Your task to perform on an android device: Search for Mexican restaurants on Maps Image 0: 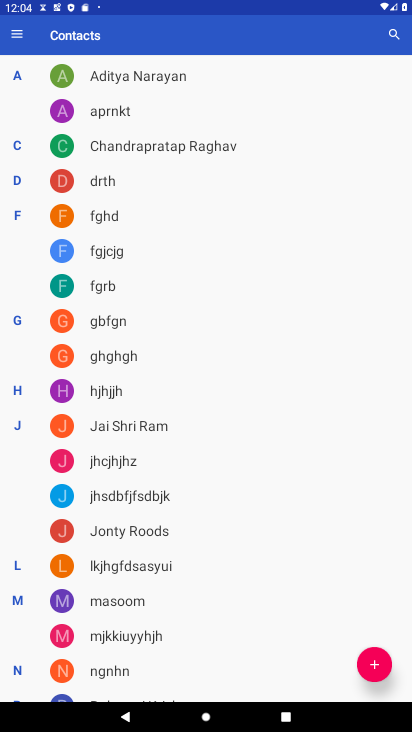
Step 0: press back button
Your task to perform on an android device: Search for Mexican restaurants on Maps Image 1: 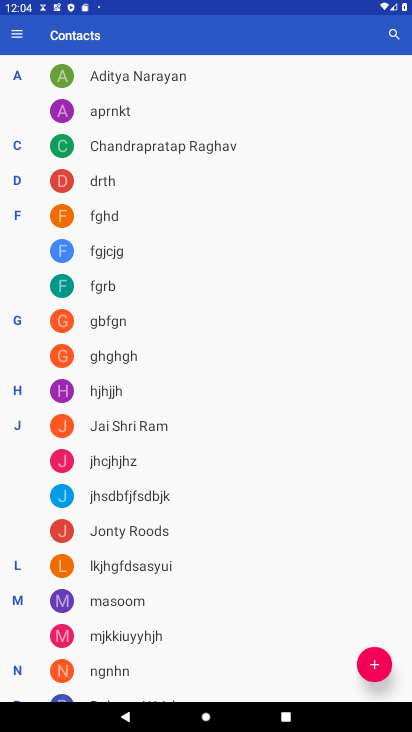
Step 1: press back button
Your task to perform on an android device: Search for Mexican restaurants on Maps Image 2: 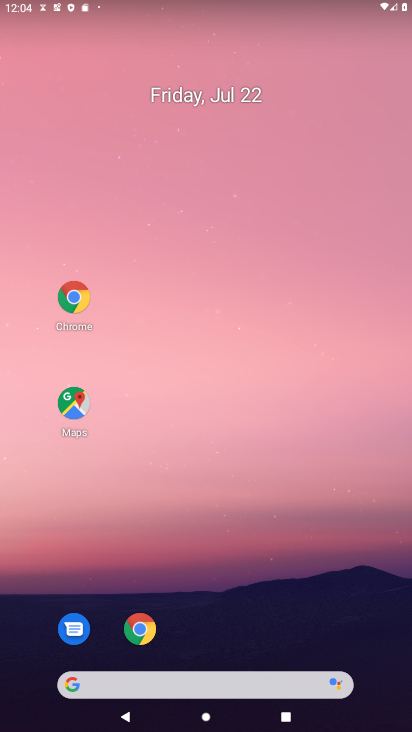
Step 2: click (227, 154)
Your task to perform on an android device: Search for Mexican restaurants on Maps Image 3: 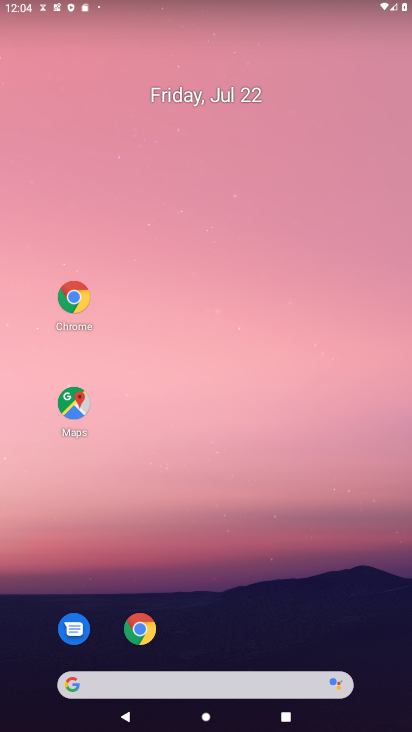
Step 3: drag from (215, 621) to (140, 109)
Your task to perform on an android device: Search for Mexican restaurants on Maps Image 4: 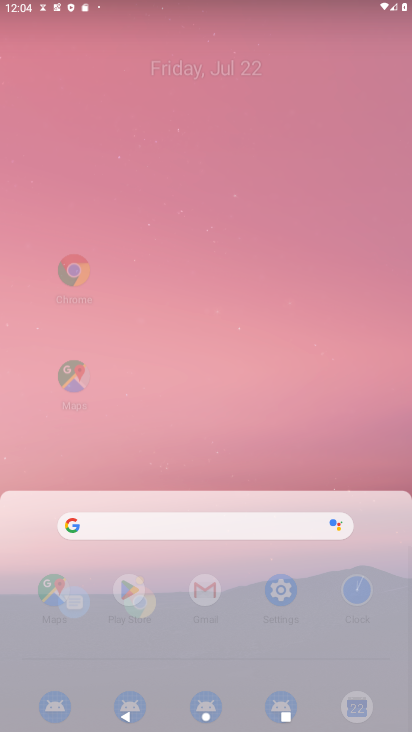
Step 4: drag from (208, 575) to (211, 51)
Your task to perform on an android device: Search for Mexican restaurants on Maps Image 5: 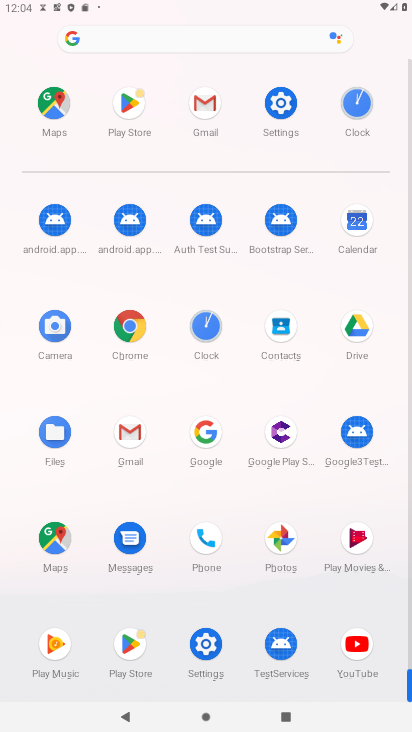
Step 5: drag from (231, 376) to (216, 111)
Your task to perform on an android device: Search for Mexican restaurants on Maps Image 6: 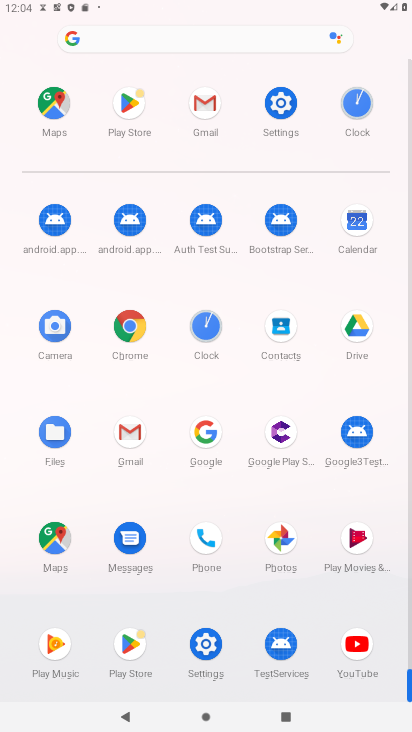
Step 6: click (53, 107)
Your task to perform on an android device: Search for Mexican restaurants on Maps Image 7: 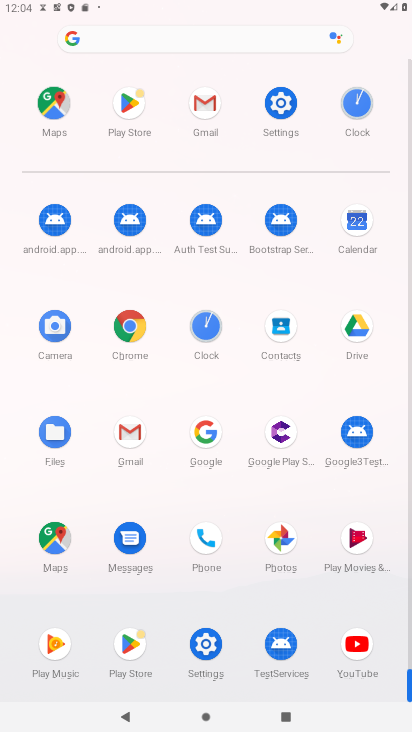
Step 7: click (53, 107)
Your task to perform on an android device: Search for Mexican restaurants on Maps Image 8: 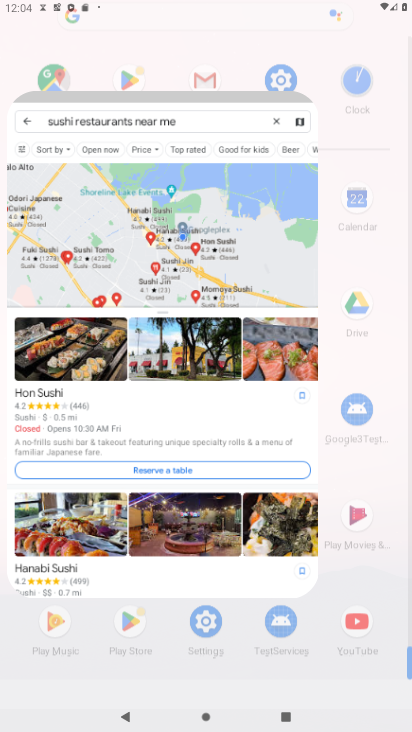
Step 8: click (55, 109)
Your task to perform on an android device: Search for Mexican restaurants on Maps Image 9: 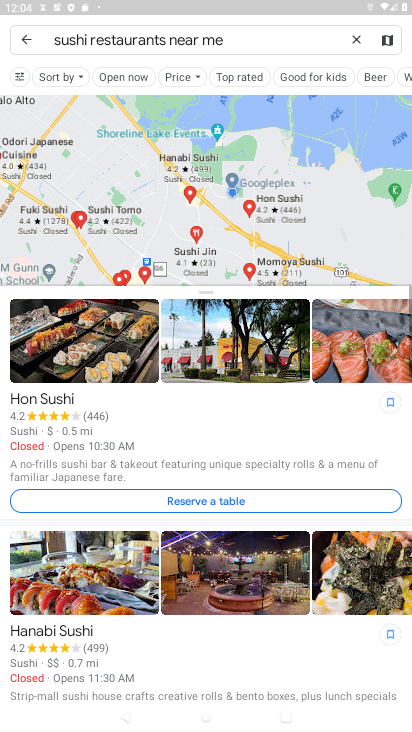
Step 9: click (349, 35)
Your task to perform on an android device: Search for Mexican restaurants on Maps Image 10: 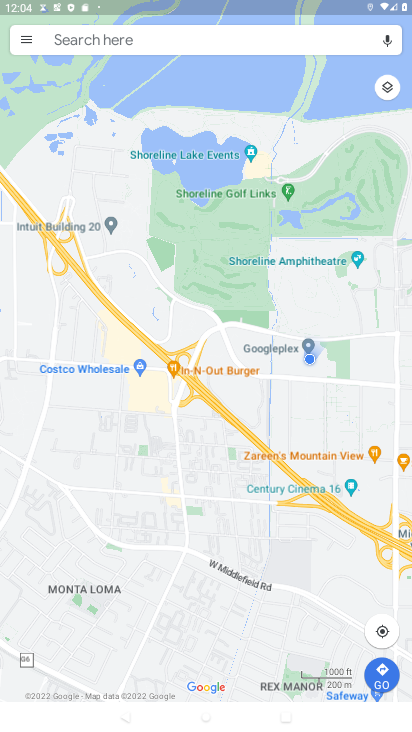
Step 10: click (256, 43)
Your task to perform on an android device: Search for Mexican restaurants on Maps Image 11: 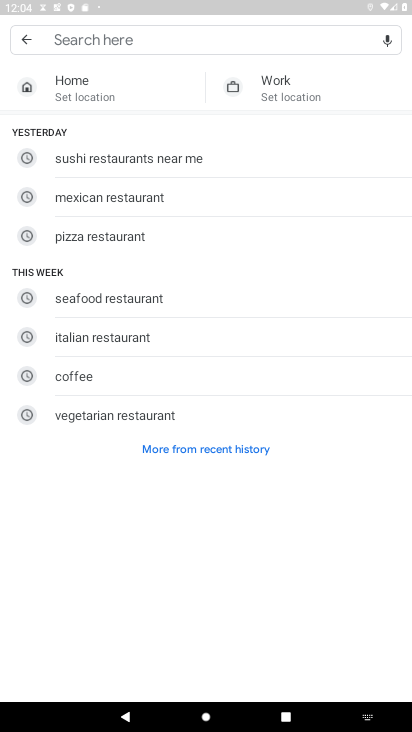
Step 11: click (76, 44)
Your task to perform on an android device: Search for Mexican restaurants on Maps Image 12: 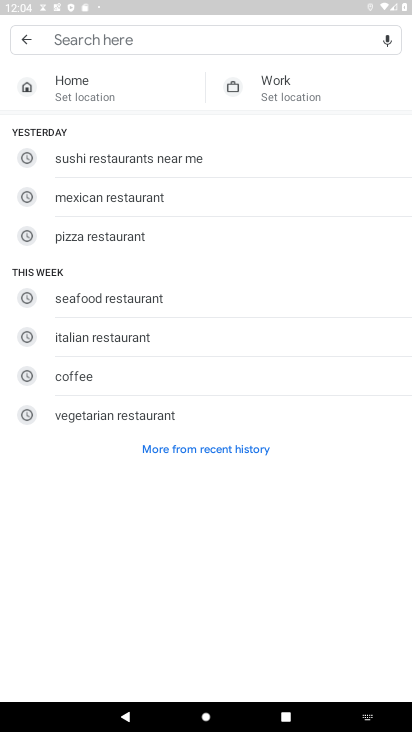
Step 12: click (150, 198)
Your task to perform on an android device: Search for Mexican restaurants on Maps Image 13: 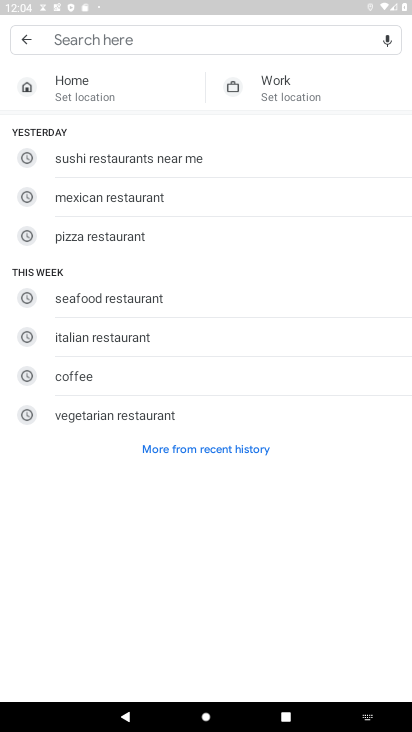
Step 13: click (152, 195)
Your task to perform on an android device: Search for Mexican restaurants on Maps Image 14: 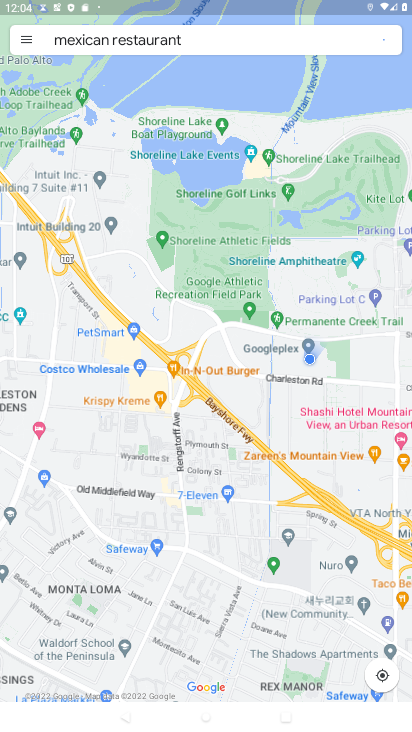
Step 14: task complete